Your task to perform on an android device: Open Youtube and go to the subscriptions tab Image 0: 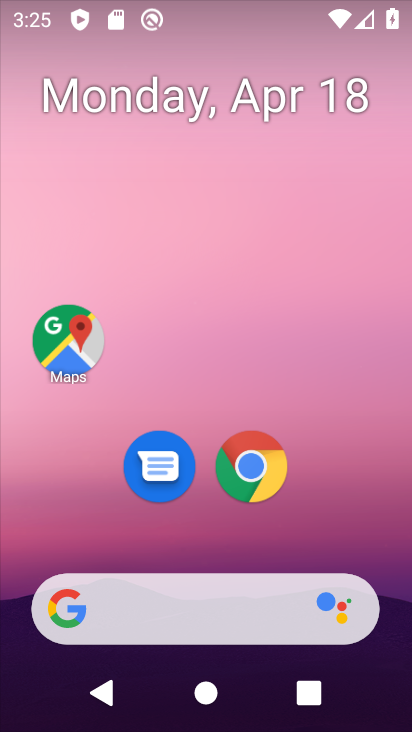
Step 0: drag from (355, 545) to (207, 15)
Your task to perform on an android device: Open Youtube and go to the subscriptions tab Image 1: 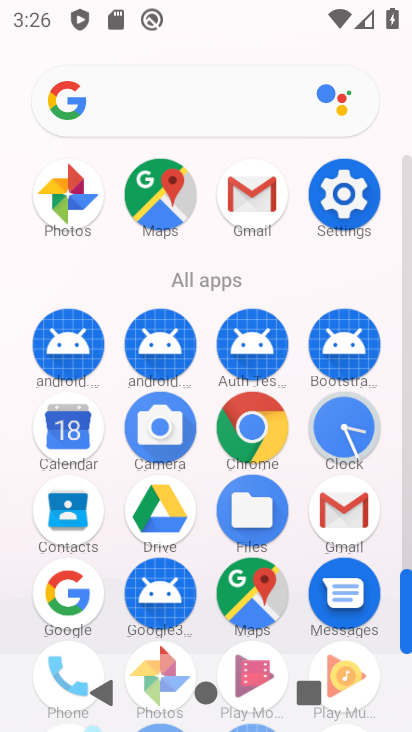
Step 1: drag from (13, 596) to (20, 329)
Your task to perform on an android device: Open Youtube and go to the subscriptions tab Image 2: 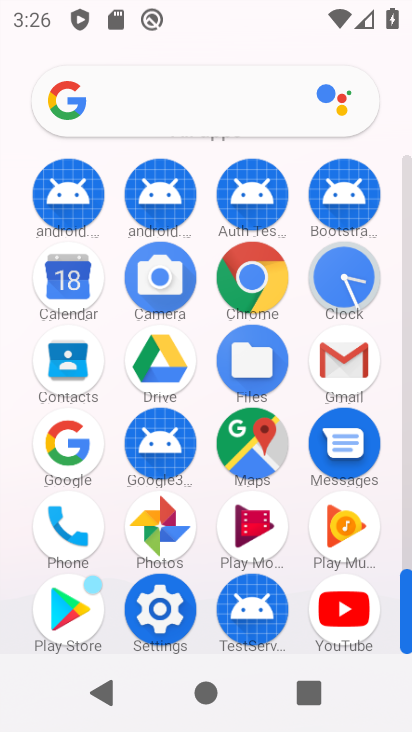
Step 2: click (342, 607)
Your task to perform on an android device: Open Youtube and go to the subscriptions tab Image 3: 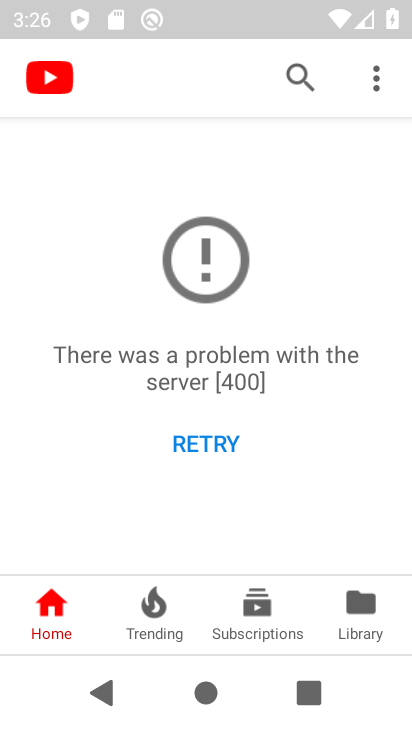
Step 3: click (373, 83)
Your task to perform on an android device: Open Youtube and go to the subscriptions tab Image 4: 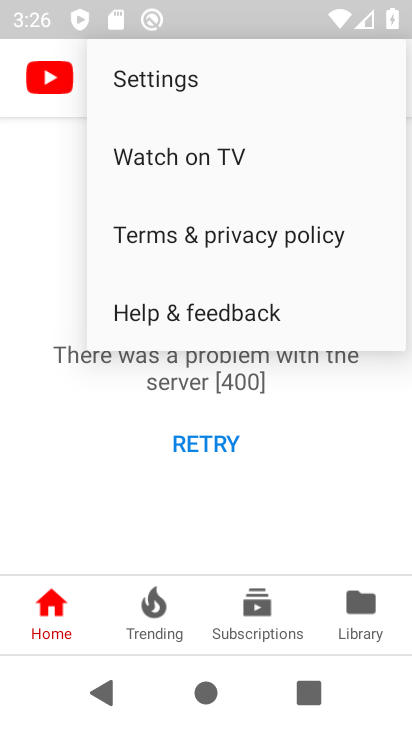
Step 4: click (205, 85)
Your task to perform on an android device: Open Youtube and go to the subscriptions tab Image 5: 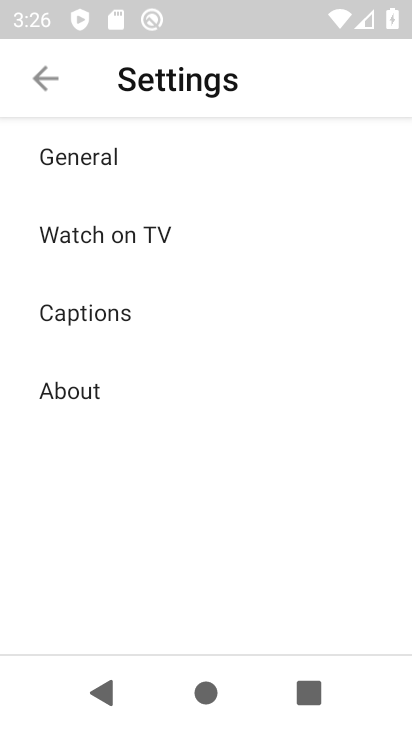
Step 5: click (91, 155)
Your task to perform on an android device: Open Youtube and go to the subscriptions tab Image 6: 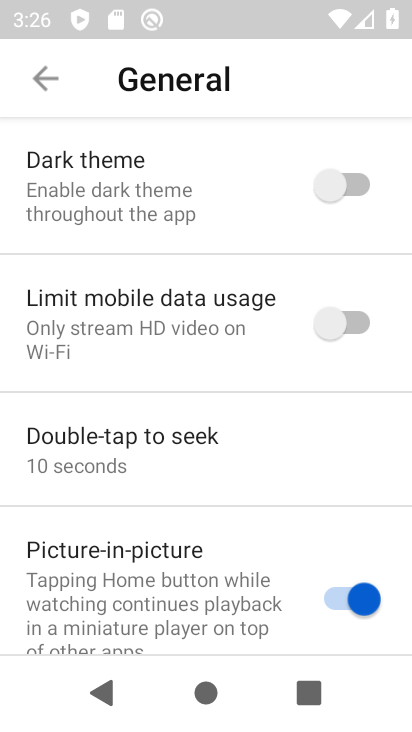
Step 6: drag from (79, 551) to (148, 127)
Your task to perform on an android device: Open Youtube and go to the subscriptions tab Image 7: 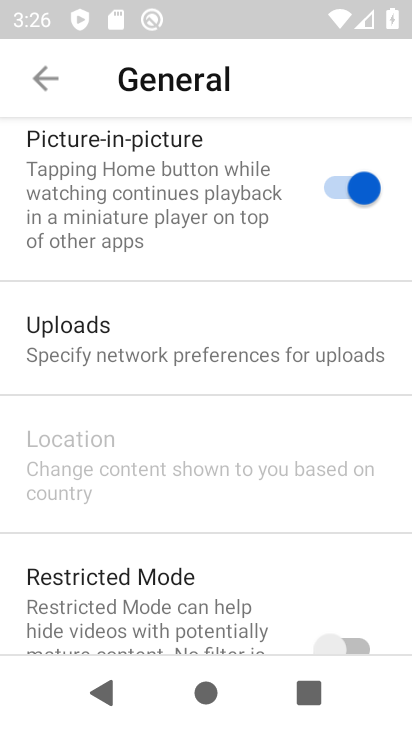
Step 7: drag from (76, 468) to (107, 236)
Your task to perform on an android device: Open Youtube and go to the subscriptions tab Image 8: 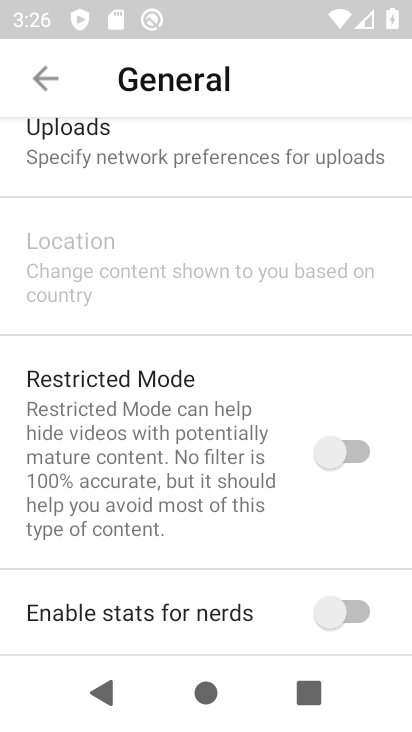
Step 8: drag from (109, 688) to (153, 337)
Your task to perform on an android device: Open Youtube and go to the subscriptions tab Image 9: 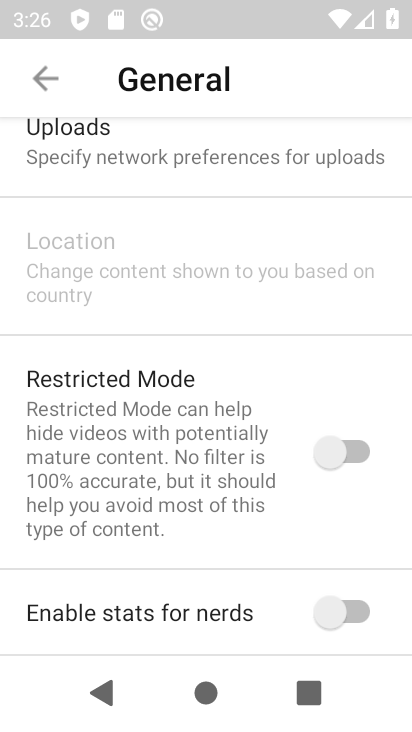
Step 9: drag from (132, 510) to (162, 261)
Your task to perform on an android device: Open Youtube and go to the subscriptions tab Image 10: 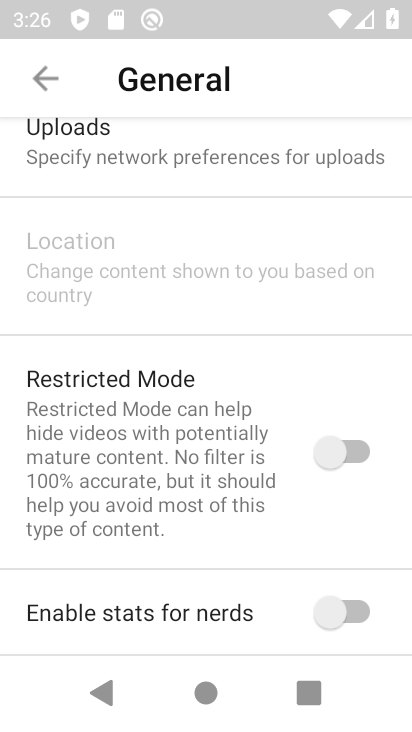
Step 10: click (58, 86)
Your task to perform on an android device: Open Youtube and go to the subscriptions tab Image 11: 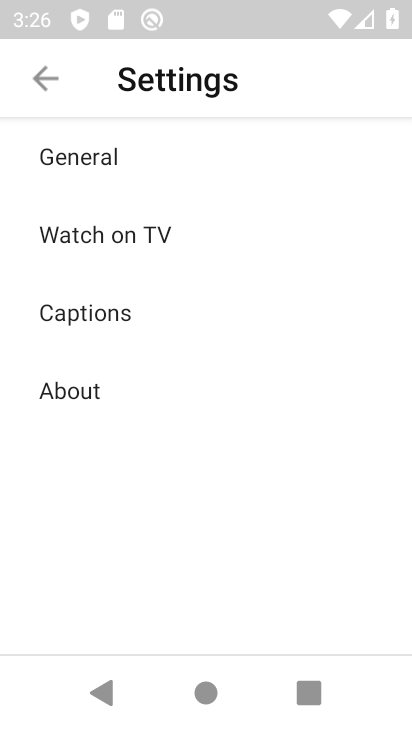
Step 11: click (58, 86)
Your task to perform on an android device: Open Youtube and go to the subscriptions tab Image 12: 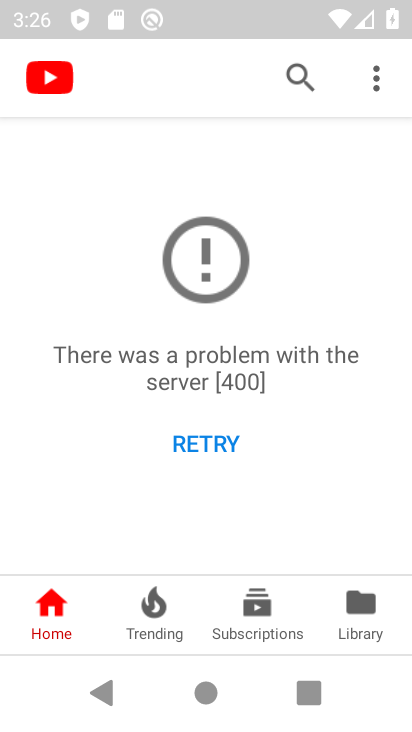
Step 12: click (33, 97)
Your task to perform on an android device: Open Youtube and go to the subscriptions tab Image 13: 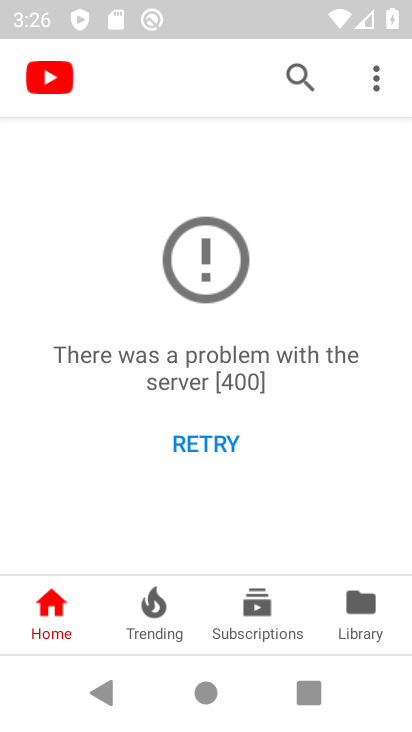
Step 13: click (36, 75)
Your task to perform on an android device: Open Youtube and go to the subscriptions tab Image 14: 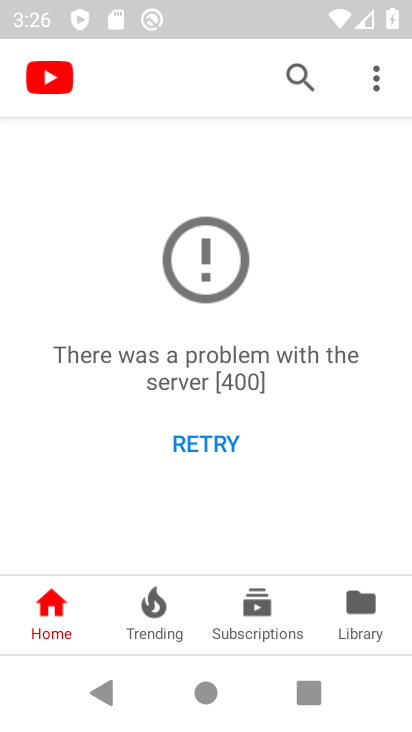
Step 14: click (263, 621)
Your task to perform on an android device: Open Youtube and go to the subscriptions tab Image 15: 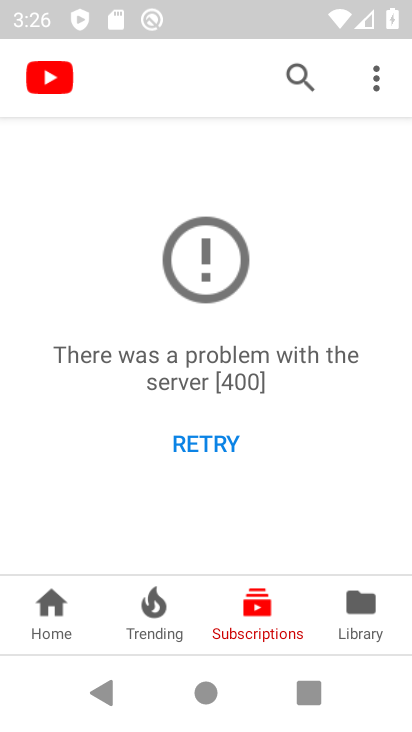
Step 15: click (217, 446)
Your task to perform on an android device: Open Youtube and go to the subscriptions tab Image 16: 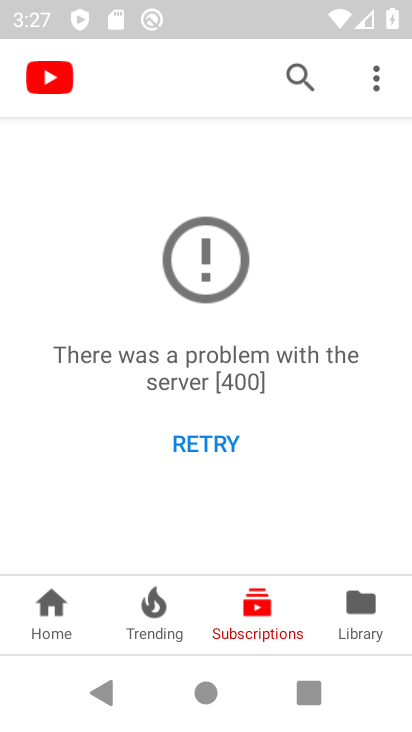
Step 16: click (248, 593)
Your task to perform on an android device: Open Youtube and go to the subscriptions tab Image 17: 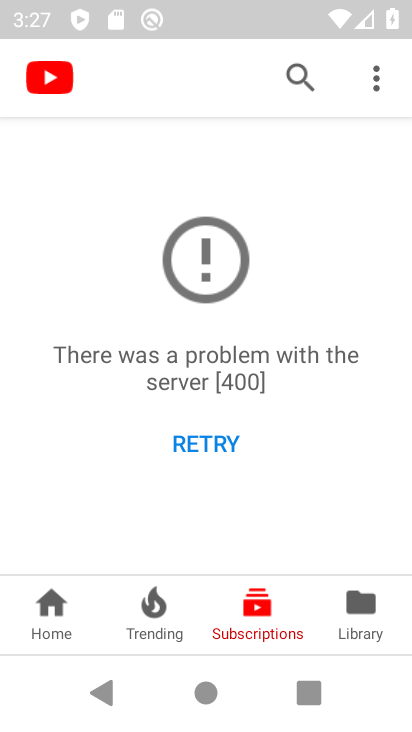
Step 17: task complete